Your task to perform on an android device: delete a single message in the gmail app Image 0: 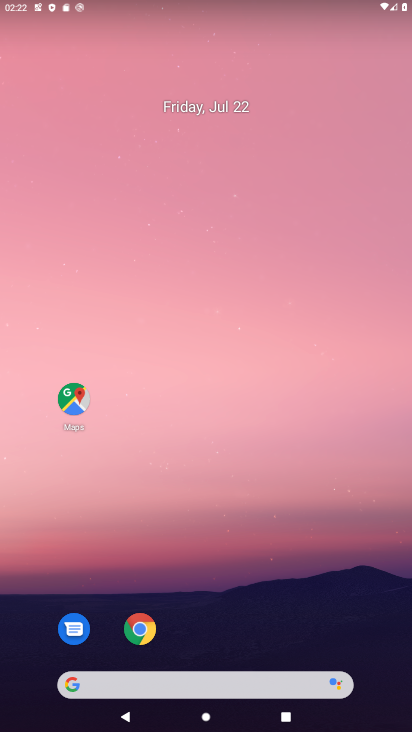
Step 0: drag from (105, 662) to (215, 87)
Your task to perform on an android device: delete a single message in the gmail app Image 1: 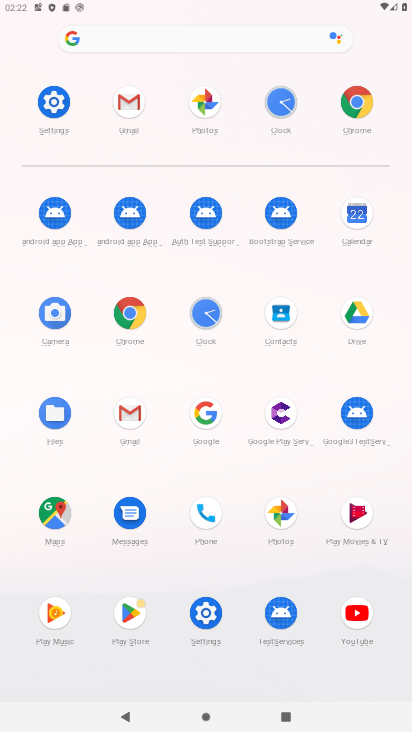
Step 1: click (118, 100)
Your task to perform on an android device: delete a single message in the gmail app Image 2: 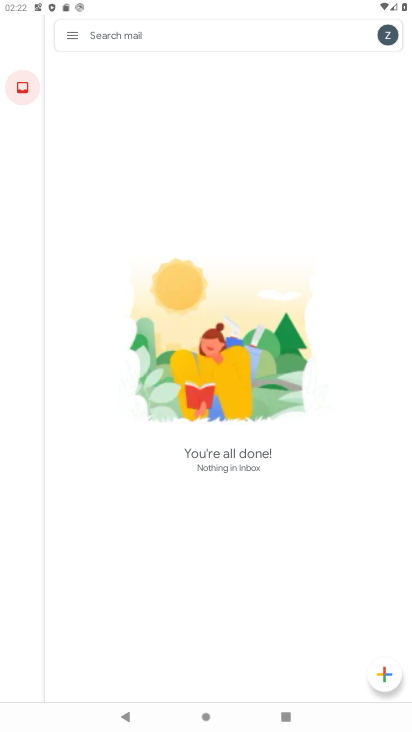
Step 2: click (79, 33)
Your task to perform on an android device: delete a single message in the gmail app Image 3: 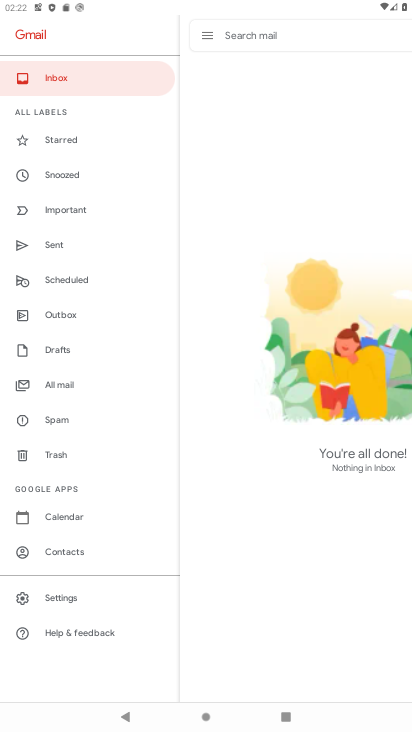
Step 3: task complete